Your task to perform on an android device: Check the weather Image 0: 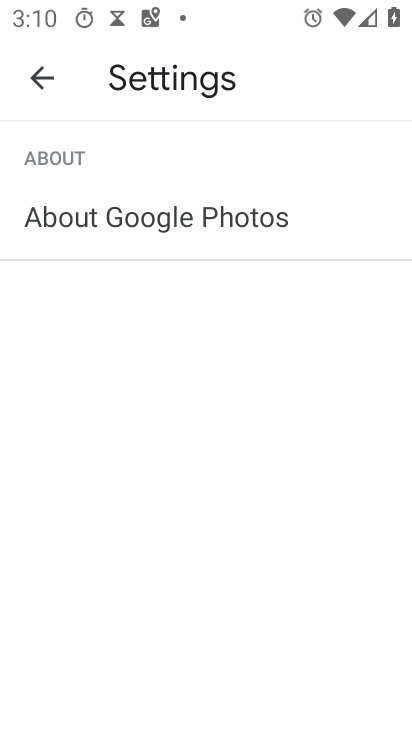
Step 0: press back button
Your task to perform on an android device: Check the weather Image 1: 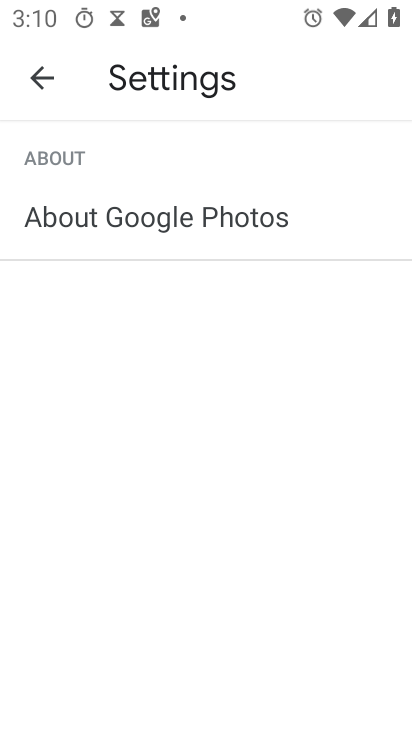
Step 1: press back button
Your task to perform on an android device: Check the weather Image 2: 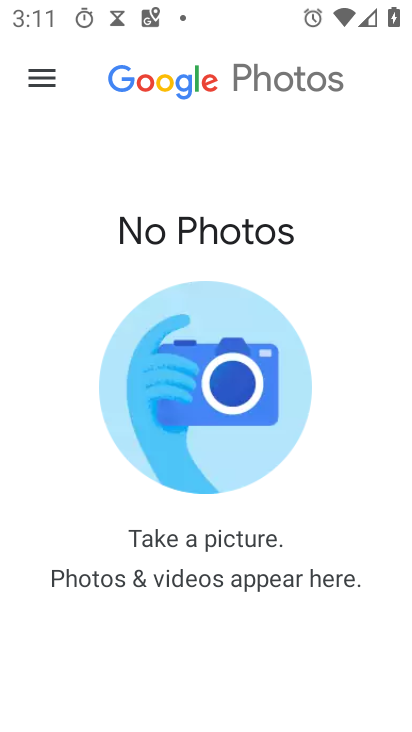
Step 2: press home button
Your task to perform on an android device: Check the weather Image 3: 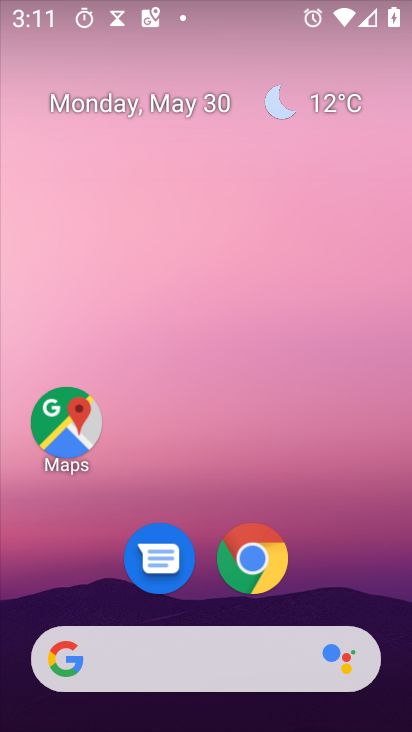
Step 3: click (289, 97)
Your task to perform on an android device: Check the weather Image 4: 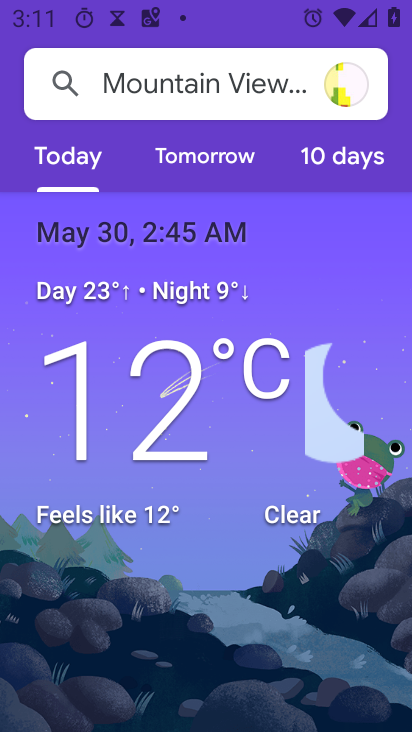
Step 4: task complete